Your task to perform on an android device: When is my next meeting? Image 0: 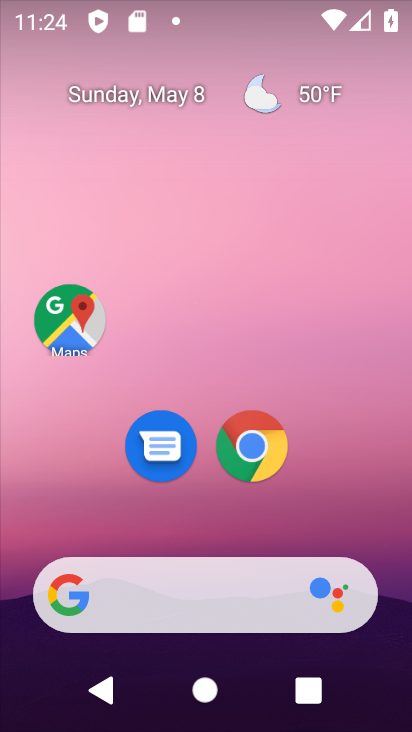
Step 0: drag from (316, 521) to (252, 108)
Your task to perform on an android device: When is my next meeting? Image 1: 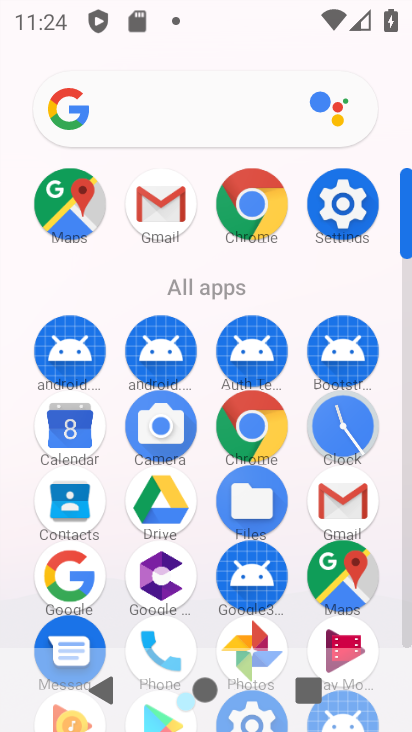
Step 1: click (59, 436)
Your task to perform on an android device: When is my next meeting? Image 2: 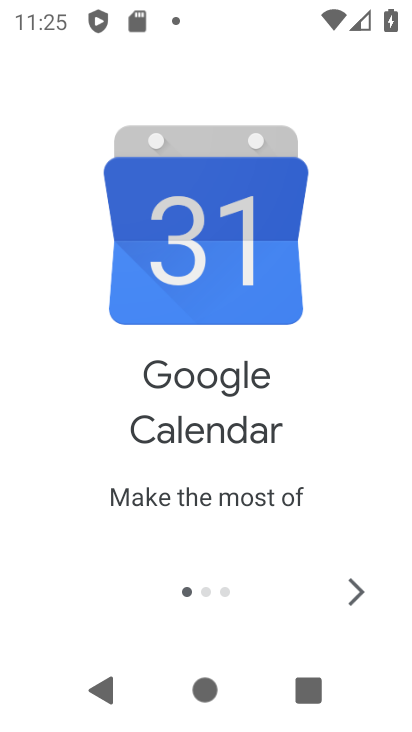
Step 2: click (349, 579)
Your task to perform on an android device: When is my next meeting? Image 3: 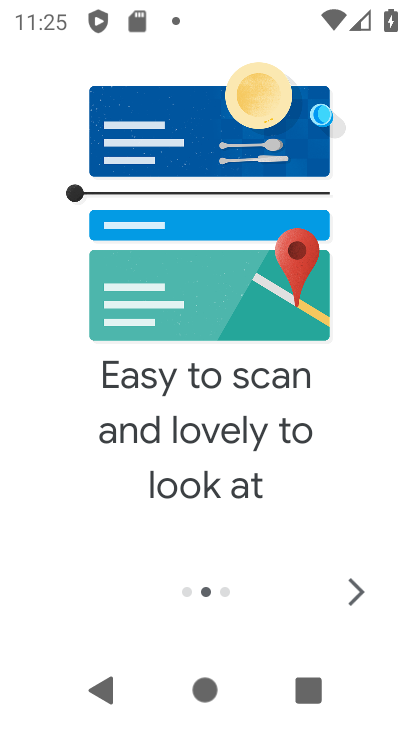
Step 3: click (356, 587)
Your task to perform on an android device: When is my next meeting? Image 4: 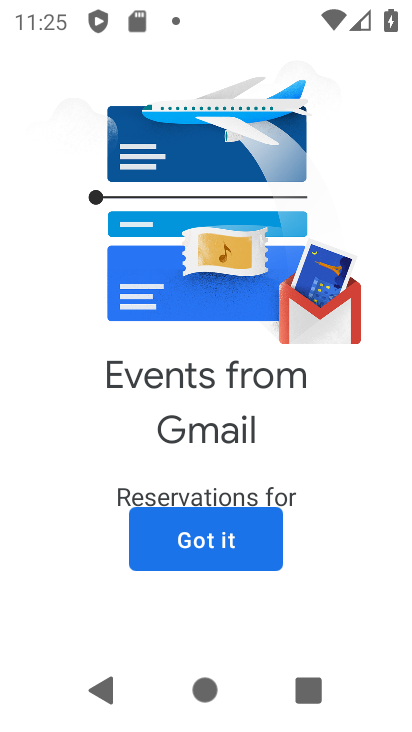
Step 4: click (217, 547)
Your task to perform on an android device: When is my next meeting? Image 5: 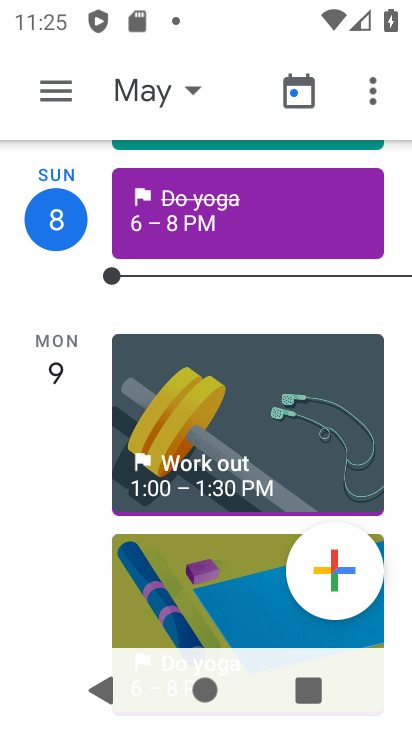
Step 5: click (141, 105)
Your task to perform on an android device: When is my next meeting? Image 6: 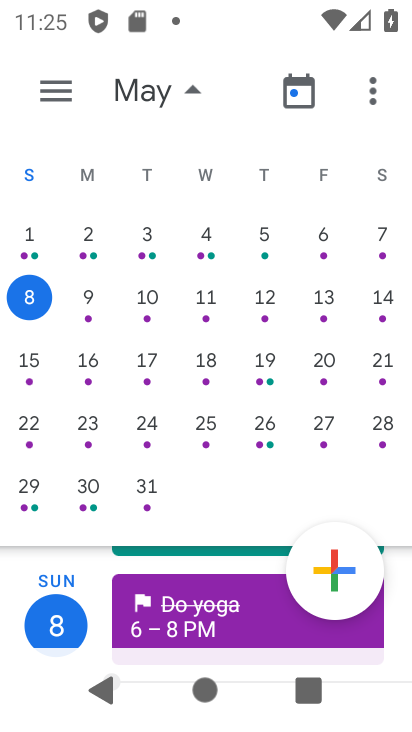
Step 6: task complete